Your task to perform on an android device: Open Google Chrome Image 0: 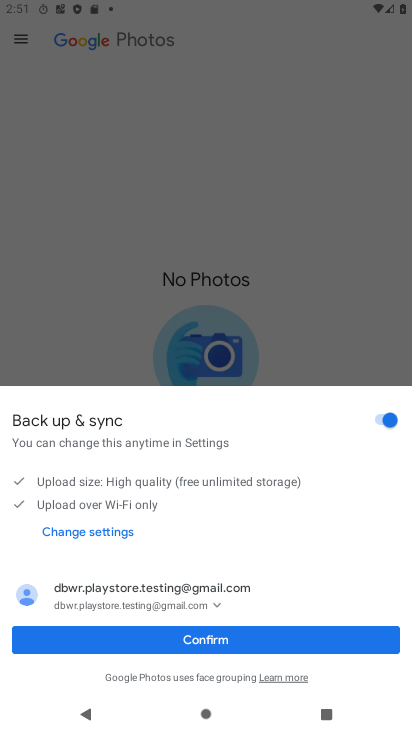
Step 0: press home button
Your task to perform on an android device: Open Google Chrome Image 1: 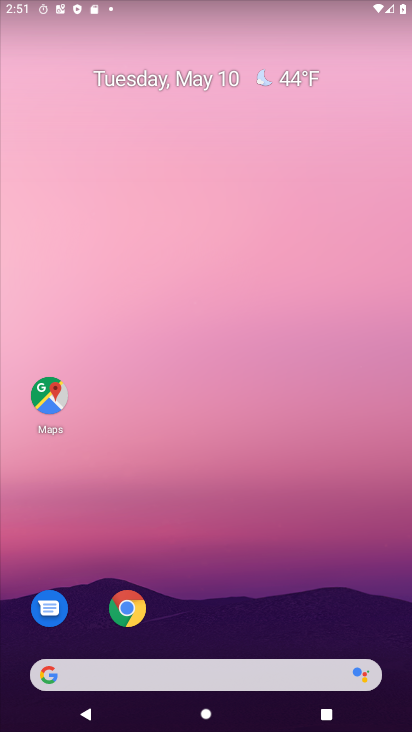
Step 1: click (201, 610)
Your task to perform on an android device: Open Google Chrome Image 2: 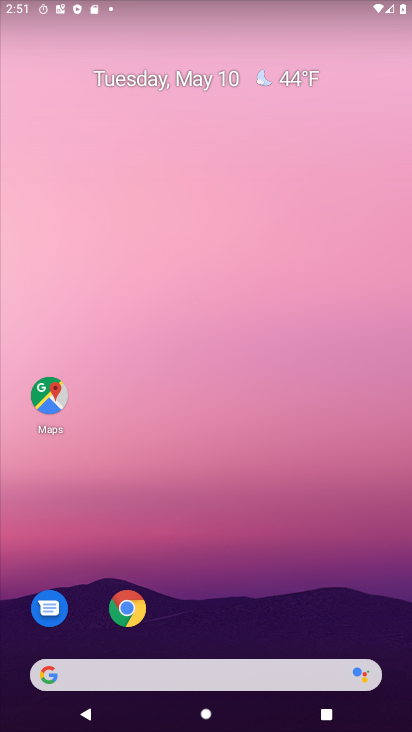
Step 2: click (131, 612)
Your task to perform on an android device: Open Google Chrome Image 3: 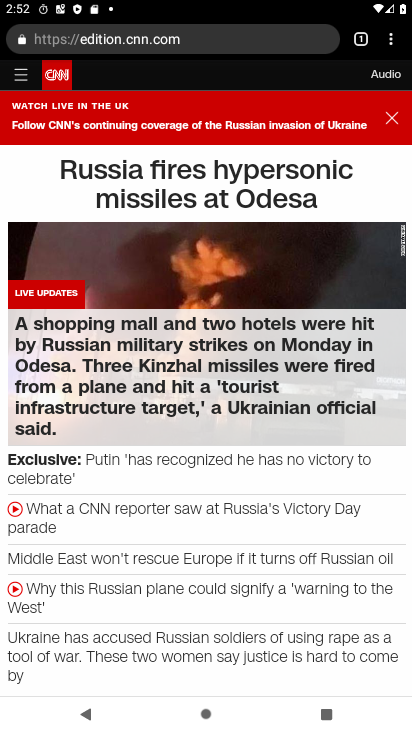
Step 3: task complete